Your task to perform on an android device: turn off sleep mode Image 0: 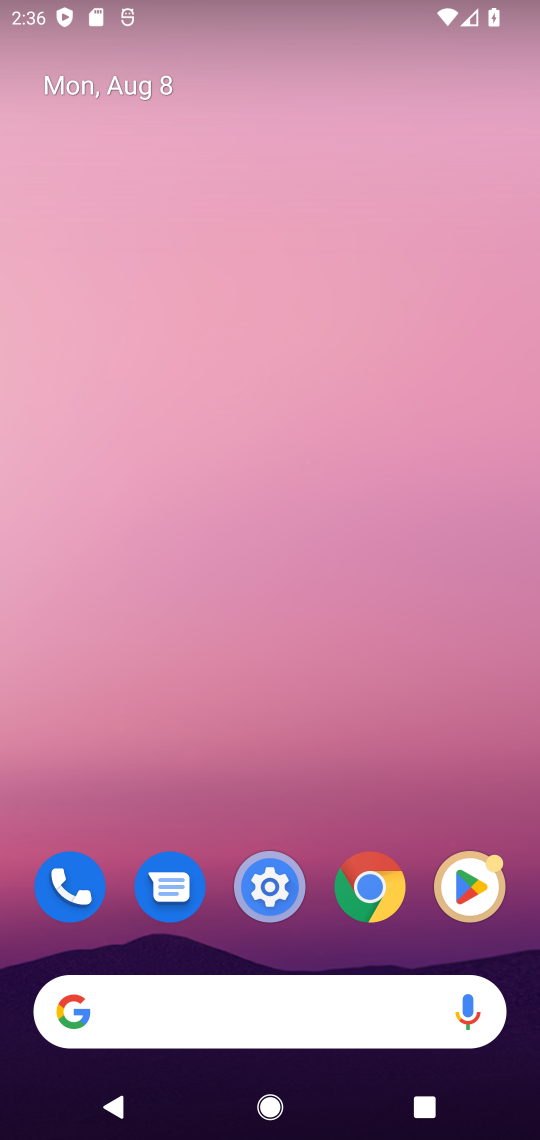
Step 0: click (267, 897)
Your task to perform on an android device: turn off sleep mode Image 1: 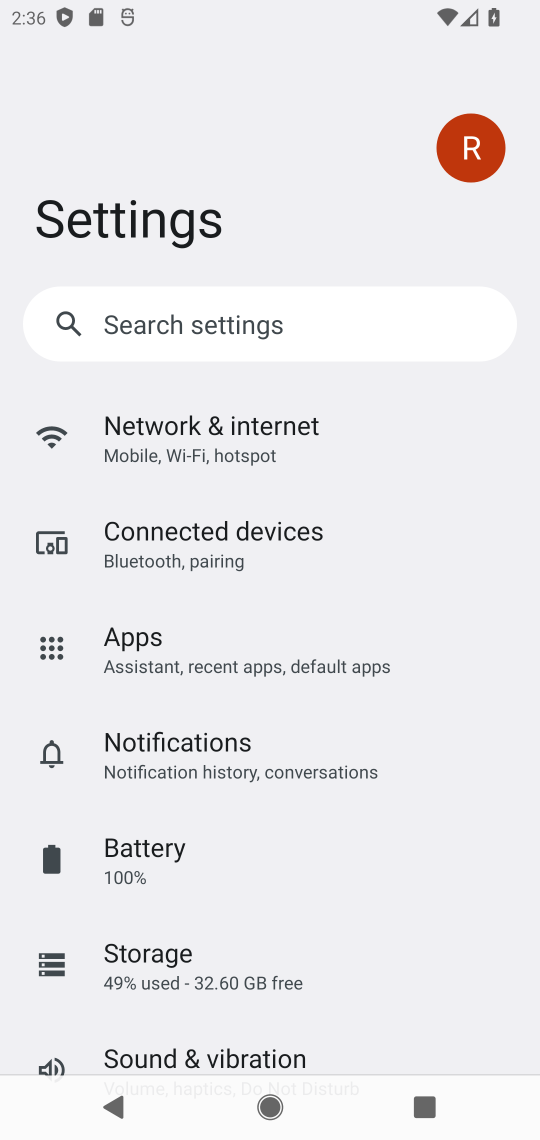
Step 1: drag from (250, 868) to (286, 243)
Your task to perform on an android device: turn off sleep mode Image 2: 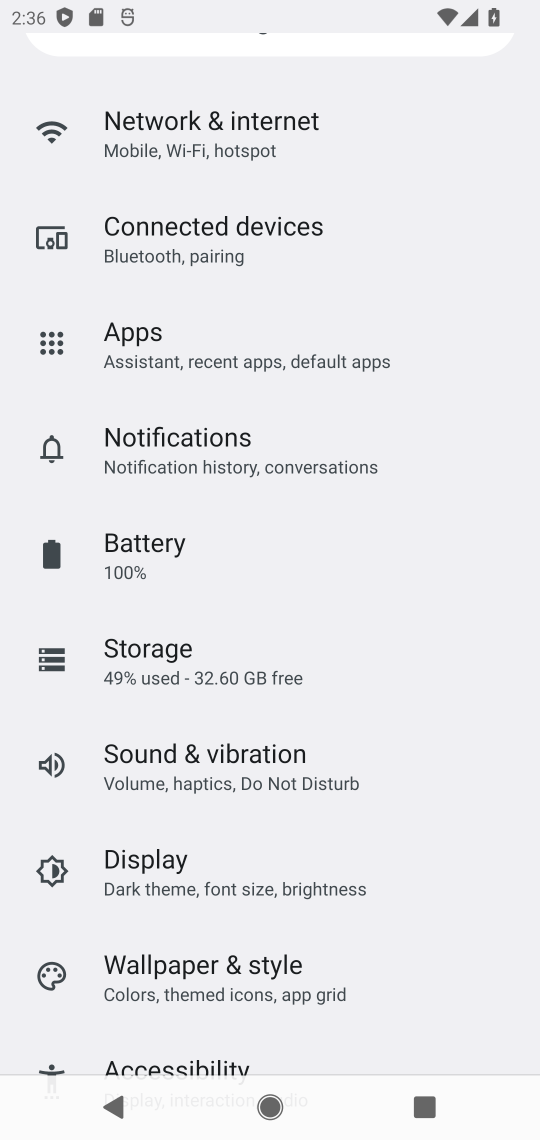
Step 2: click (323, 765)
Your task to perform on an android device: turn off sleep mode Image 3: 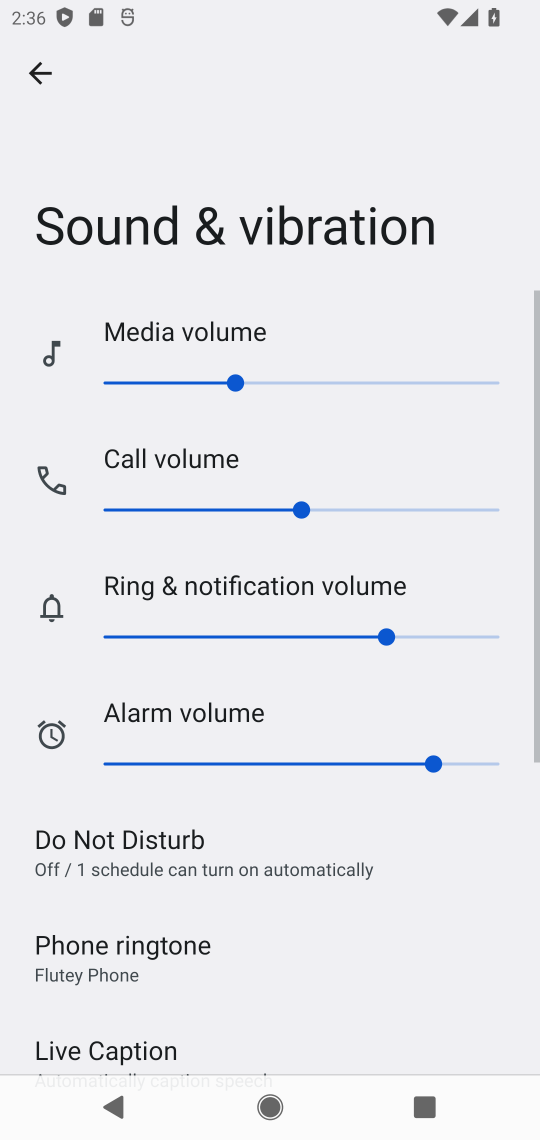
Step 3: task complete